Your task to perform on an android device: Go to Android settings Image 0: 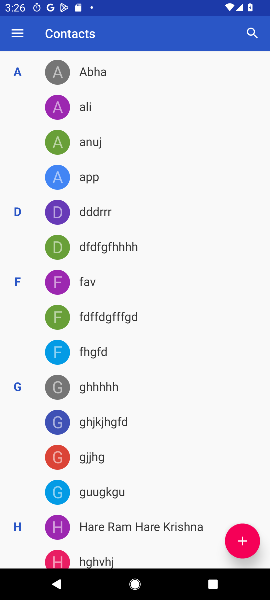
Step 0: press home button
Your task to perform on an android device: Go to Android settings Image 1: 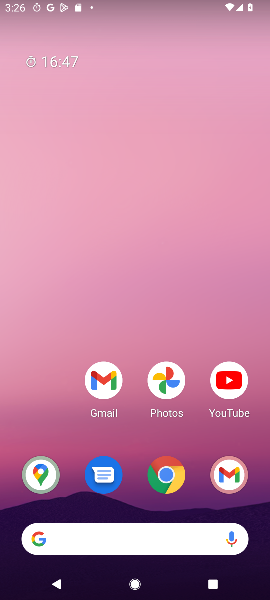
Step 1: drag from (63, 430) to (73, 187)
Your task to perform on an android device: Go to Android settings Image 2: 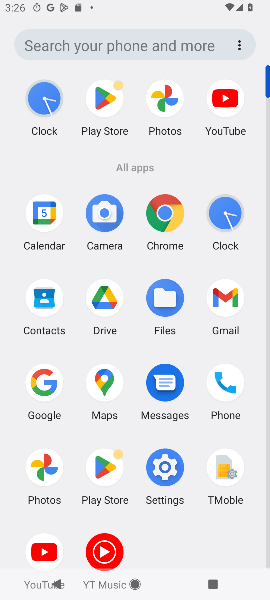
Step 2: click (168, 472)
Your task to perform on an android device: Go to Android settings Image 3: 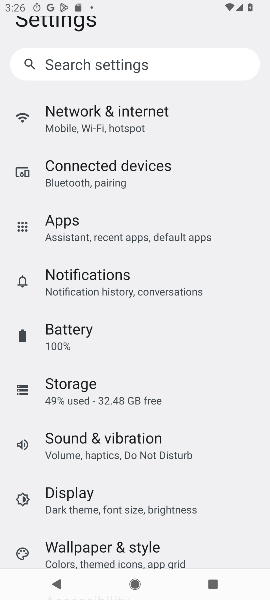
Step 3: drag from (242, 288) to (237, 343)
Your task to perform on an android device: Go to Android settings Image 4: 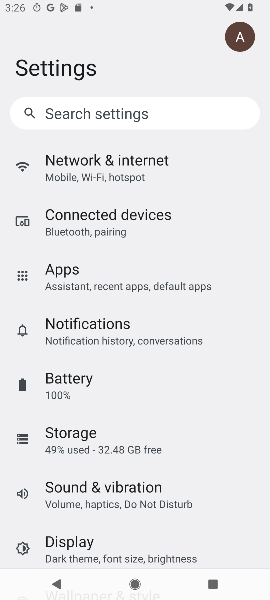
Step 4: drag from (218, 353) to (227, 313)
Your task to perform on an android device: Go to Android settings Image 5: 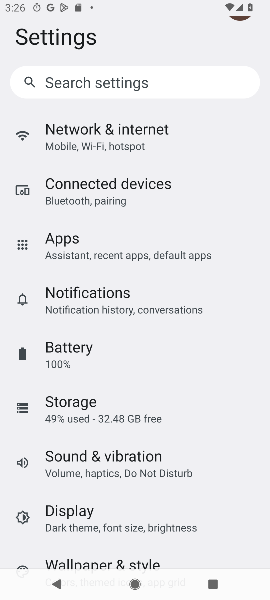
Step 5: drag from (229, 400) to (241, 344)
Your task to perform on an android device: Go to Android settings Image 6: 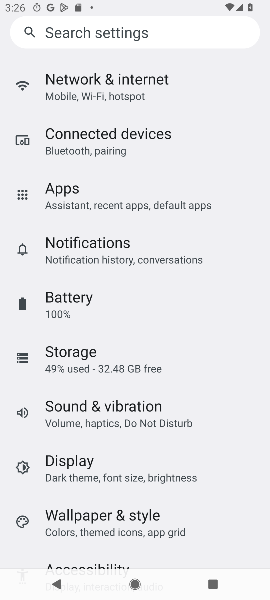
Step 6: drag from (220, 465) to (231, 387)
Your task to perform on an android device: Go to Android settings Image 7: 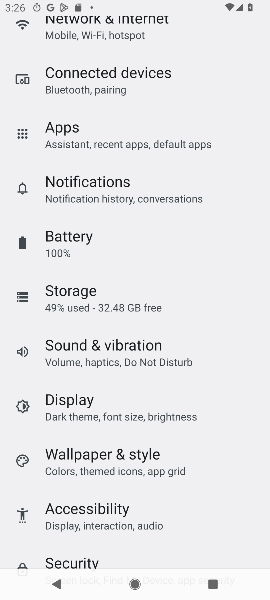
Step 7: drag from (226, 492) to (232, 404)
Your task to perform on an android device: Go to Android settings Image 8: 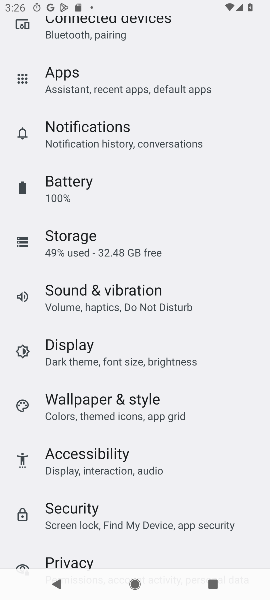
Step 8: drag from (223, 462) to (236, 402)
Your task to perform on an android device: Go to Android settings Image 9: 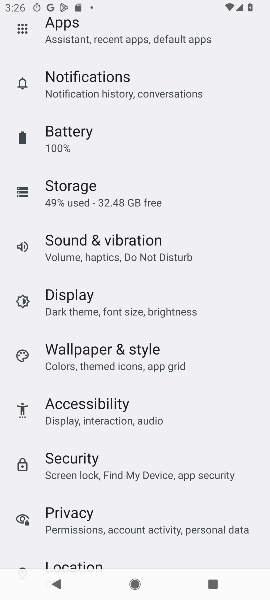
Step 9: drag from (230, 493) to (228, 400)
Your task to perform on an android device: Go to Android settings Image 10: 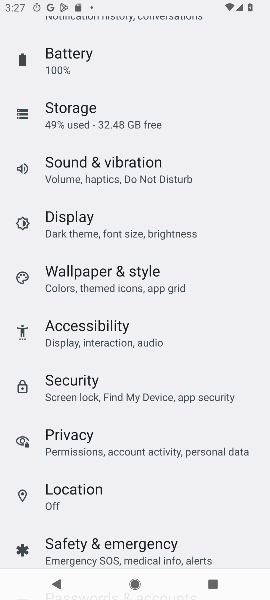
Step 10: drag from (211, 513) to (219, 427)
Your task to perform on an android device: Go to Android settings Image 11: 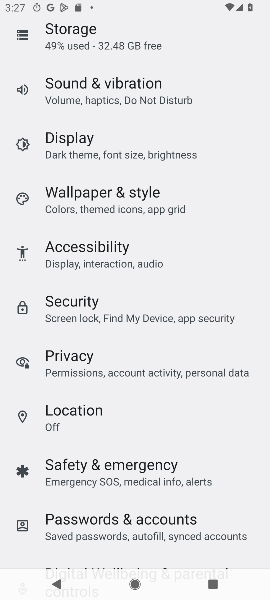
Step 11: drag from (212, 513) to (221, 430)
Your task to perform on an android device: Go to Android settings Image 12: 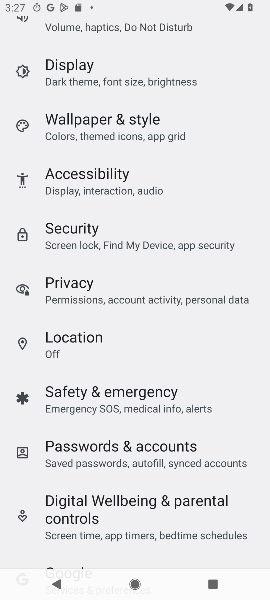
Step 12: drag from (223, 542) to (226, 427)
Your task to perform on an android device: Go to Android settings Image 13: 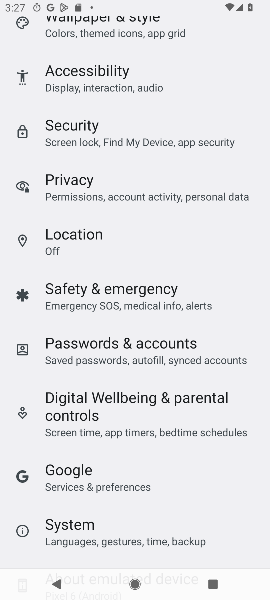
Step 13: drag from (200, 513) to (213, 399)
Your task to perform on an android device: Go to Android settings Image 14: 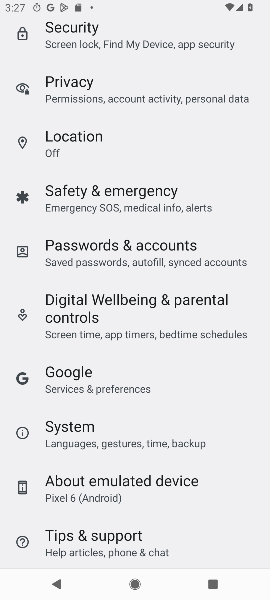
Step 14: drag from (211, 525) to (227, 412)
Your task to perform on an android device: Go to Android settings Image 15: 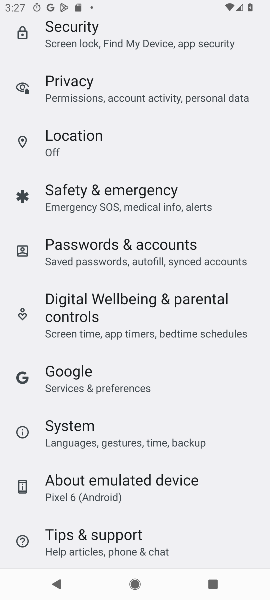
Step 15: click (169, 433)
Your task to perform on an android device: Go to Android settings Image 16: 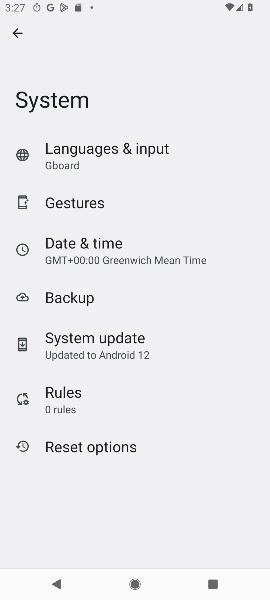
Step 16: task complete